Your task to perform on an android device: Go to calendar. Show me events next week Image 0: 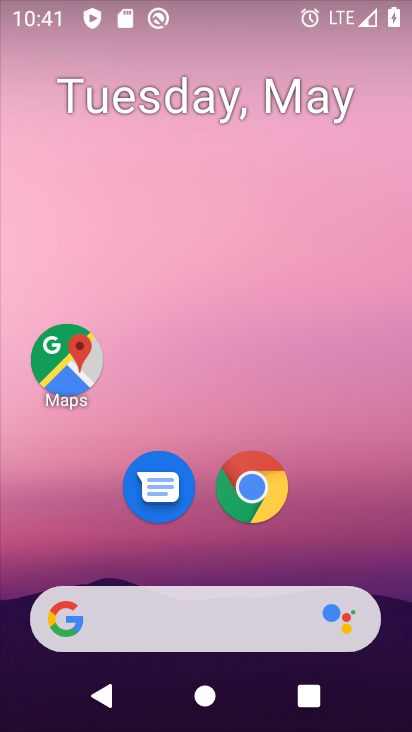
Step 0: drag from (202, 430) to (217, 27)
Your task to perform on an android device: Go to calendar. Show me events next week Image 1: 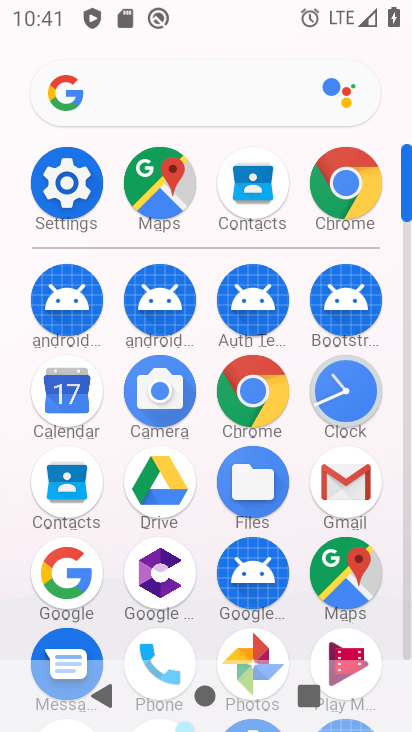
Step 1: click (60, 389)
Your task to perform on an android device: Go to calendar. Show me events next week Image 2: 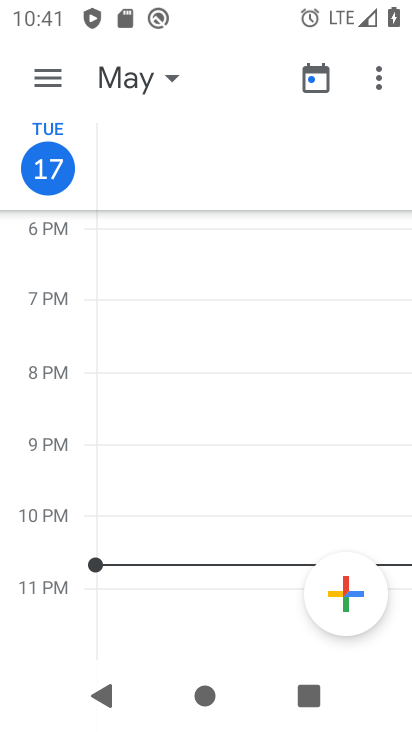
Step 2: click (159, 76)
Your task to perform on an android device: Go to calendar. Show me events next week Image 3: 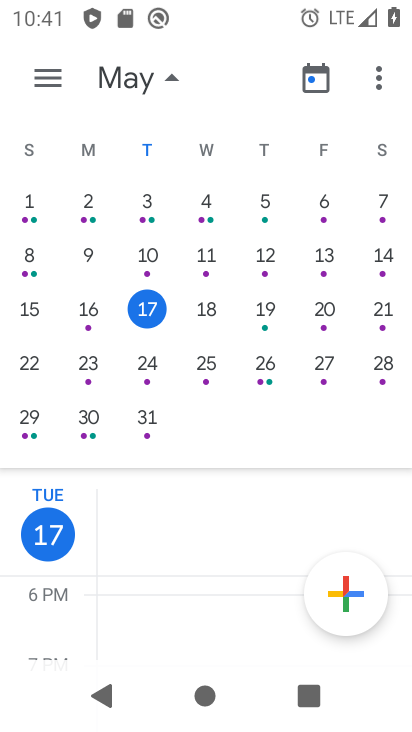
Step 3: click (264, 374)
Your task to perform on an android device: Go to calendar. Show me events next week Image 4: 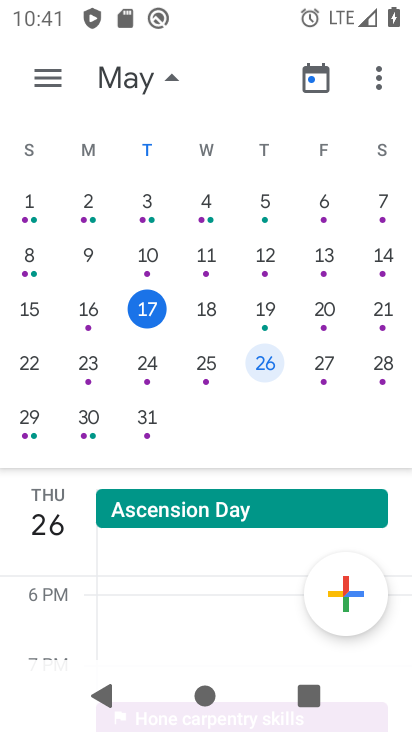
Step 4: task complete